Your task to perform on an android device: toggle notification dots Image 0: 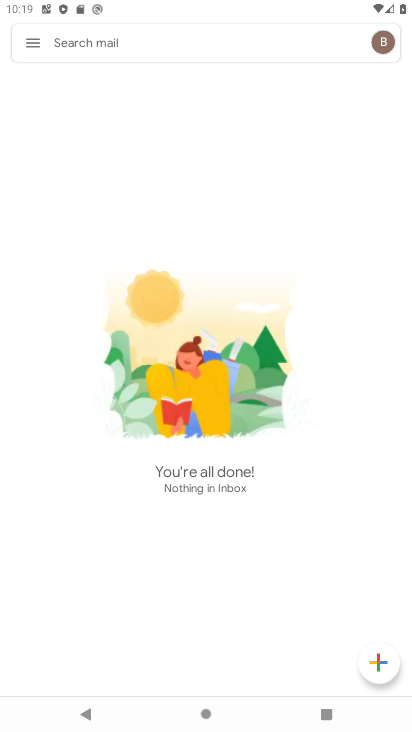
Step 0: press home button
Your task to perform on an android device: toggle notification dots Image 1: 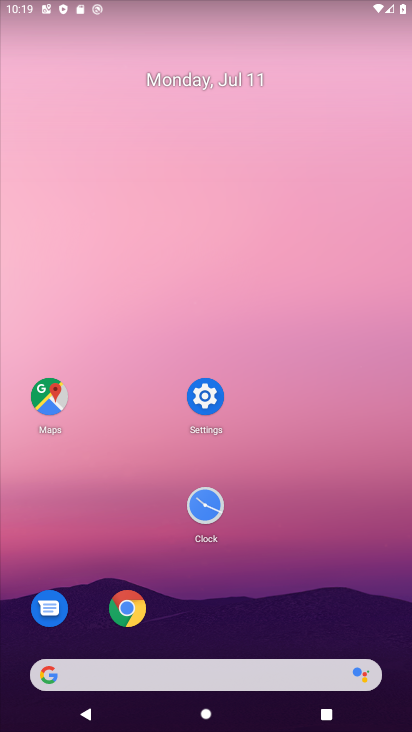
Step 1: click (209, 382)
Your task to perform on an android device: toggle notification dots Image 2: 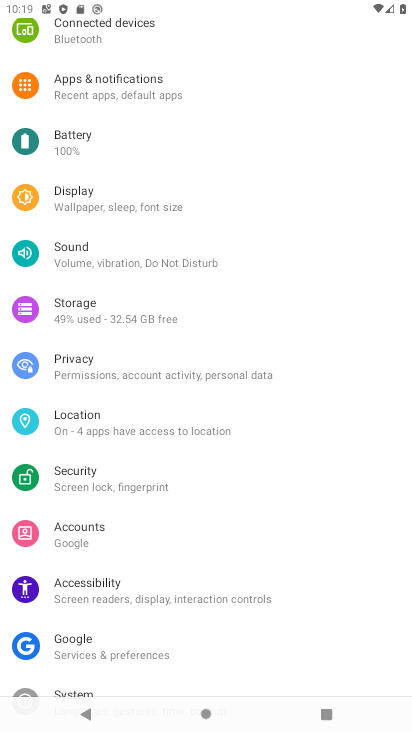
Step 2: click (107, 86)
Your task to perform on an android device: toggle notification dots Image 3: 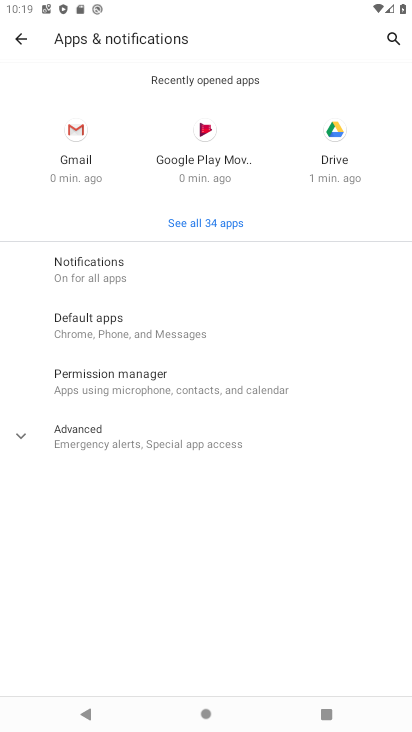
Step 3: click (89, 253)
Your task to perform on an android device: toggle notification dots Image 4: 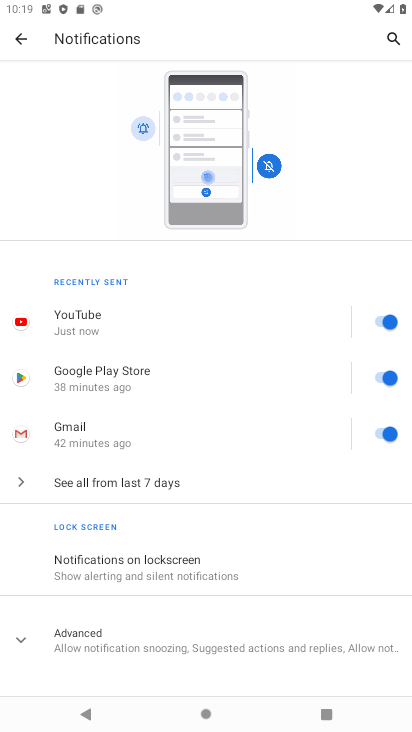
Step 4: drag from (249, 625) to (277, 280)
Your task to perform on an android device: toggle notification dots Image 5: 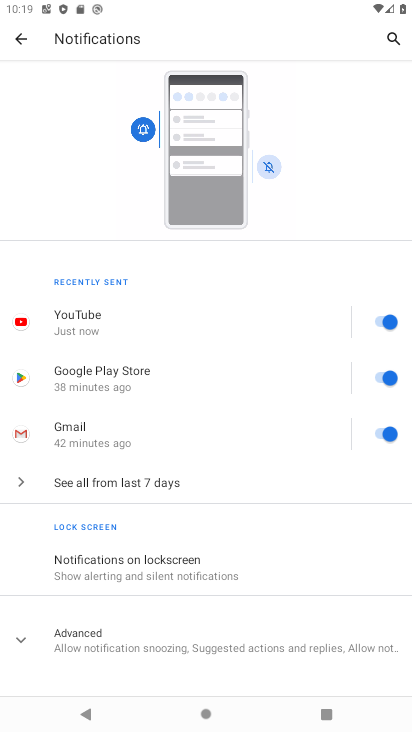
Step 5: click (19, 642)
Your task to perform on an android device: toggle notification dots Image 6: 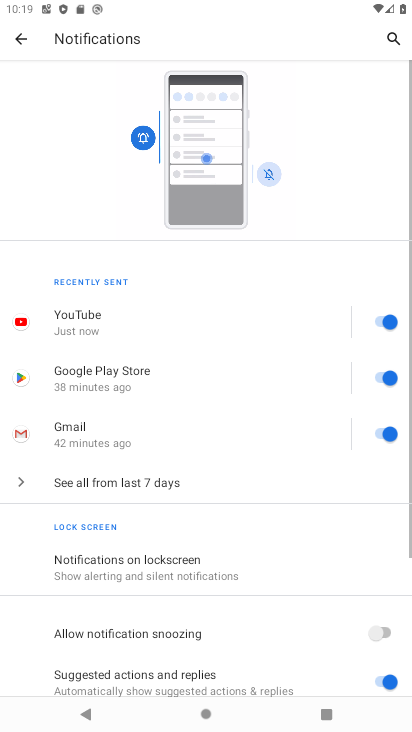
Step 6: drag from (254, 668) to (282, 348)
Your task to perform on an android device: toggle notification dots Image 7: 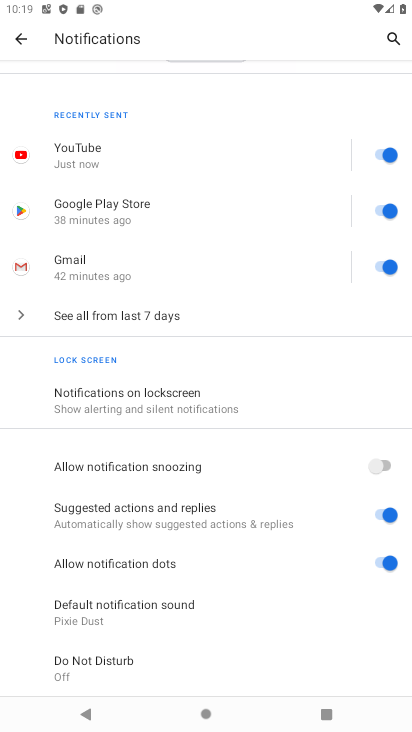
Step 7: click (393, 561)
Your task to perform on an android device: toggle notification dots Image 8: 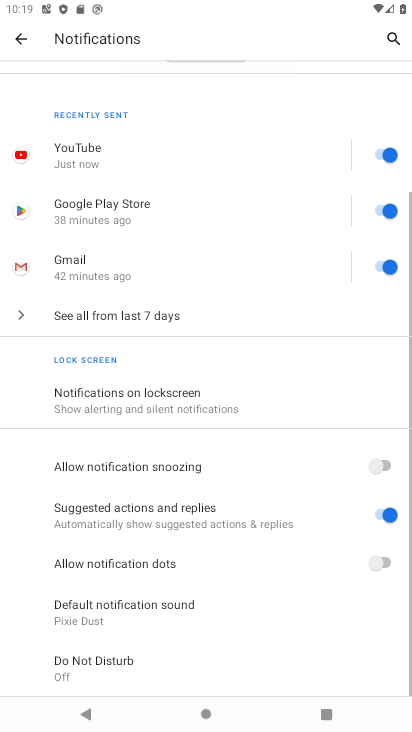
Step 8: task complete